Your task to perform on an android device: set default search engine in the chrome app Image 0: 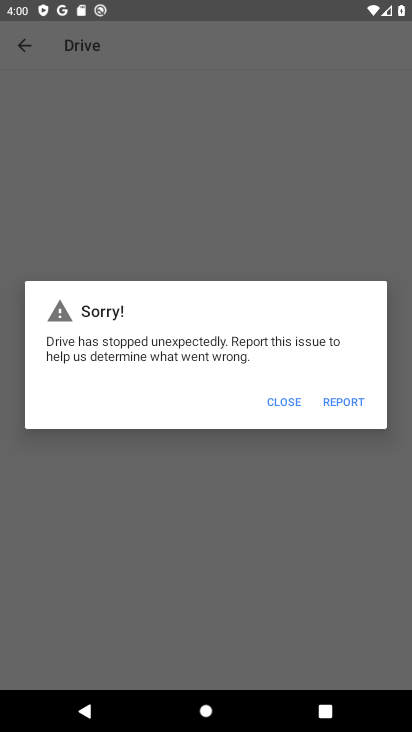
Step 0: press home button
Your task to perform on an android device: set default search engine in the chrome app Image 1: 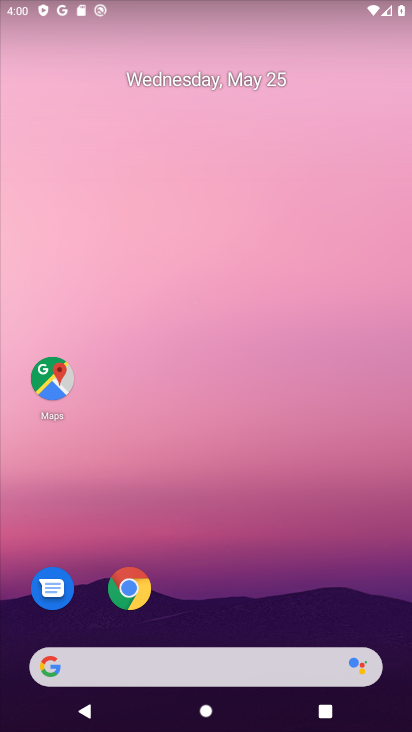
Step 1: click (135, 583)
Your task to perform on an android device: set default search engine in the chrome app Image 2: 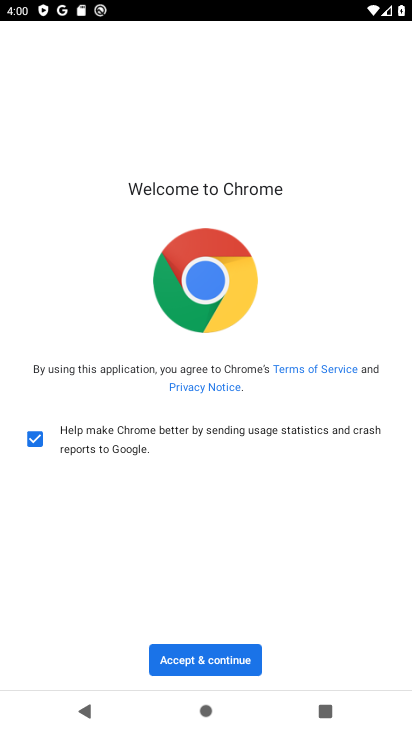
Step 2: click (205, 661)
Your task to perform on an android device: set default search engine in the chrome app Image 3: 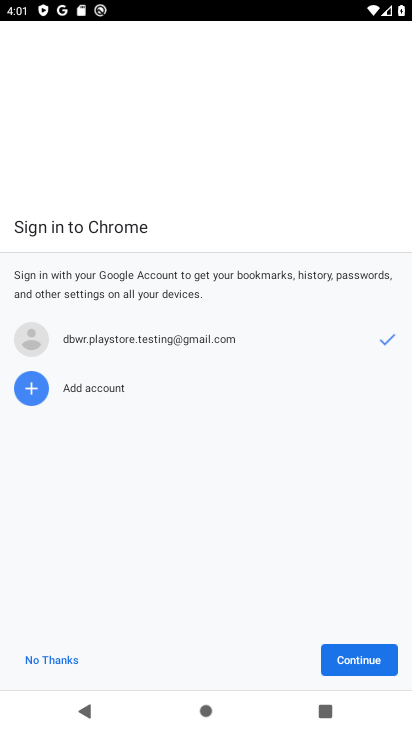
Step 3: click (381, 652)
Your task to perform on an android device: set default search engine in the chrome app Image 4: 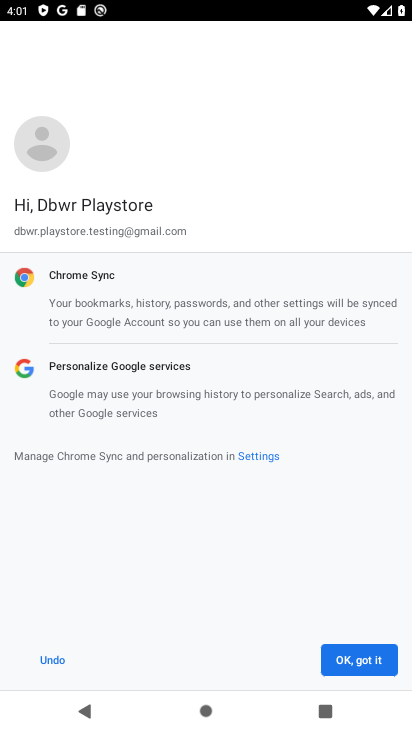
Step 4: click (383, 653)
Your task to perform on an android device: set default search engine in the chrome app Image 5: 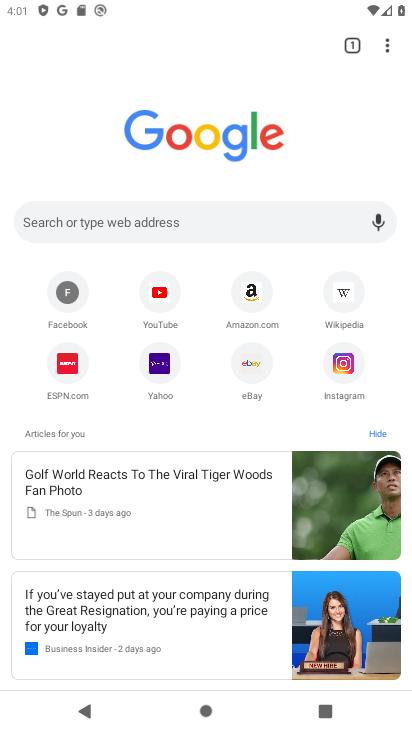
Step 5: click (382, 46)
Your task to perform on an android device: set default search engine in the chrome app Image 6: 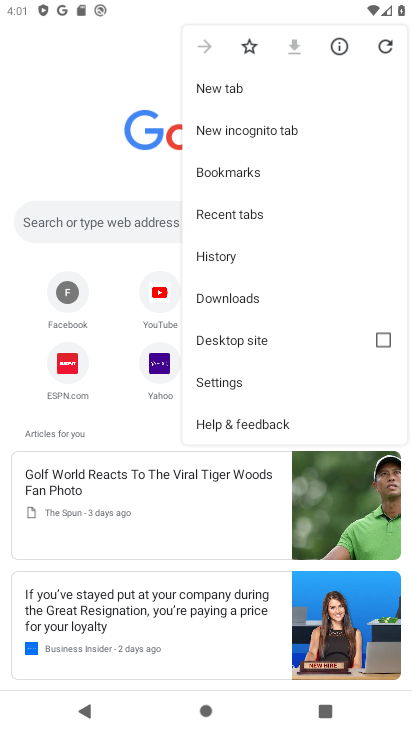
Step 6: click (256, 371)
Your task to perform on an android device: set default search engine in the chrome app Image 7: 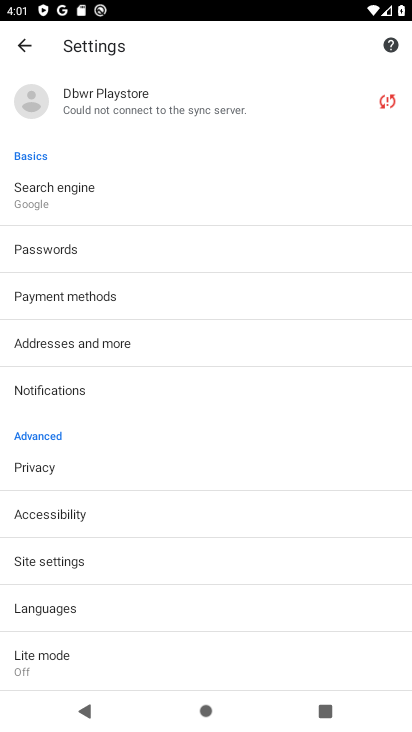
Step 7: click (160, 189)
Your task to perform on an android device: set default search engine in the chrome app Image 8: 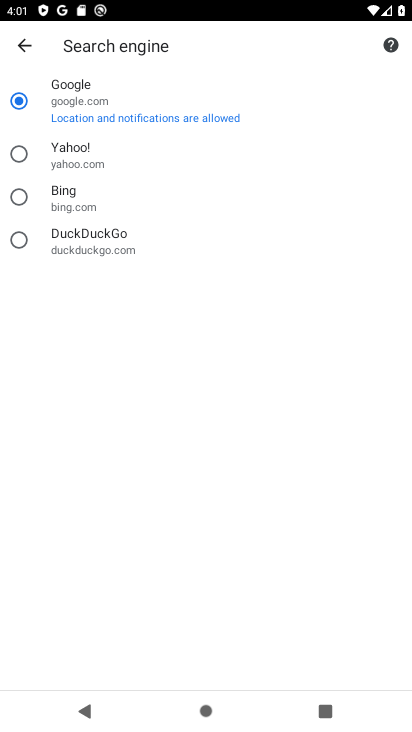
Step 8: click (138, 155)
Your task to perform on an android device: set default search engine in the chrome app Image 9: 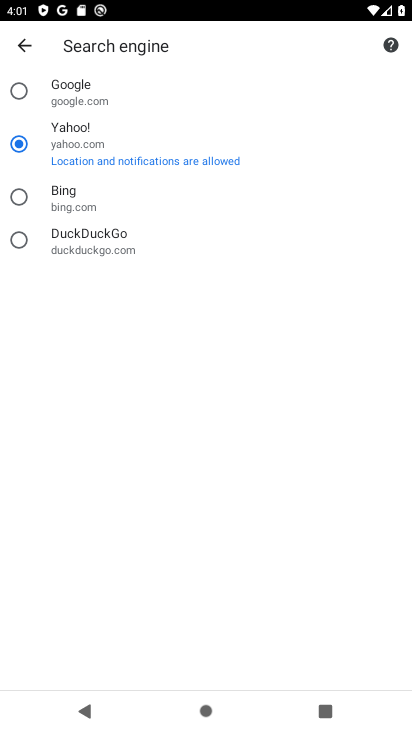
Step 9: task complete